Your task to perform on an android device: Open the web browser Image 0: 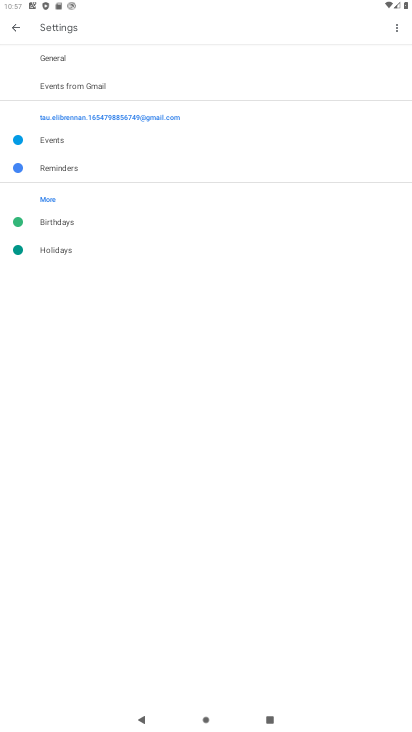
Step 0: press home button
Your task to perform on an android device: Open the web browser Image 1: 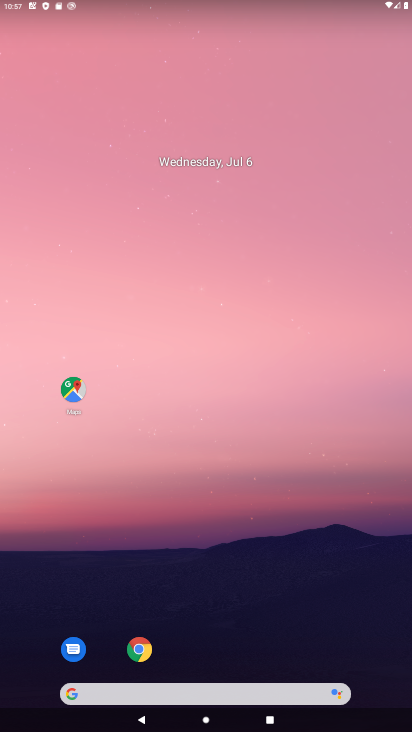
Step 1: drag from (348, 684) to (205, 7)
Your task to perform on an android device: Open the web browser Image 2: 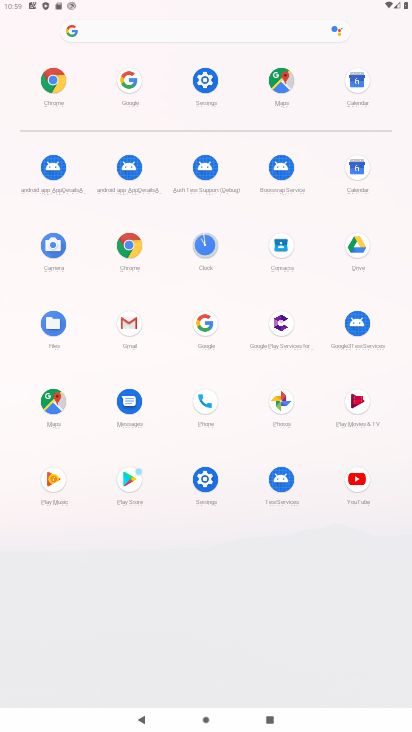
Step 2: click (125, 73)
Your task to perform on an android device: Open the web browser Image 3: 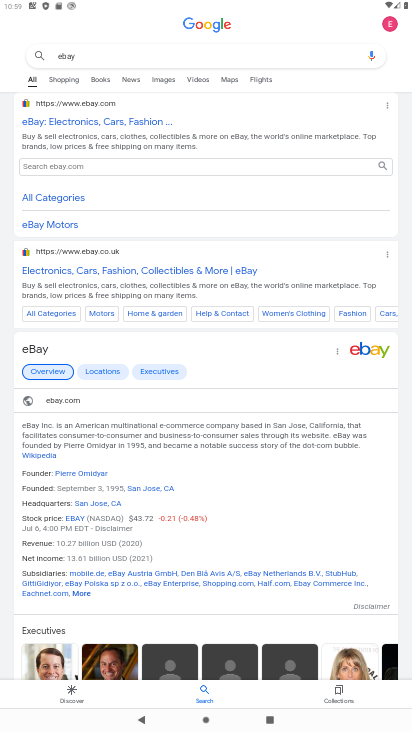
Step 3: press back button
Your task to perform on an android device: Open the web browser Image 4: 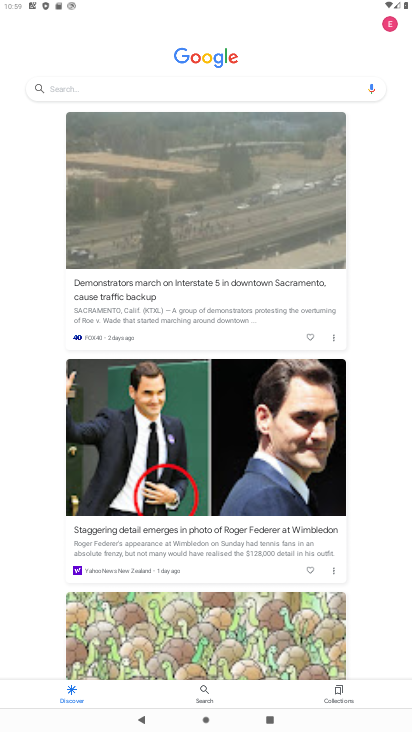
Step 4: click (116, 82)
Your task to perform on an android device: Open the web browser Image 5: 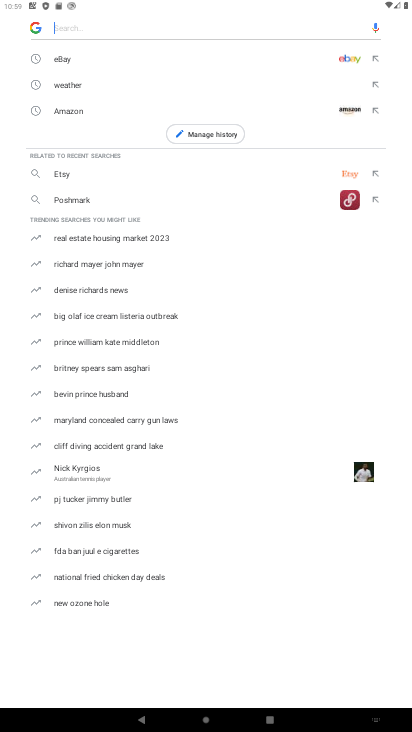
Step 5: type "web browser"
Your task to perform on an android device: Open the web browser Image 6: 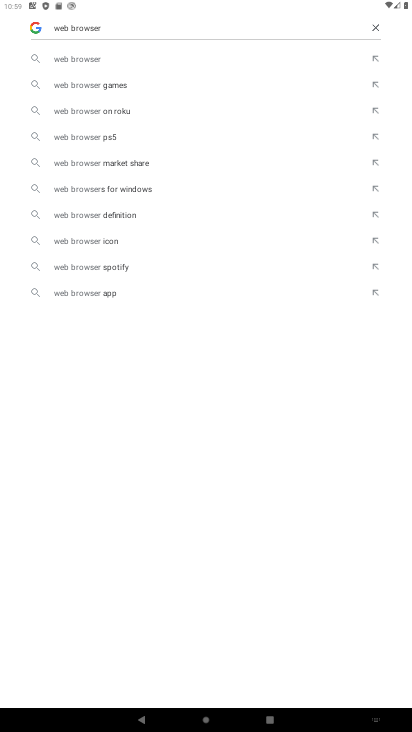
Step 6: click (66, 65)
Your task to perform on an android device: Open the web browser Image 7: 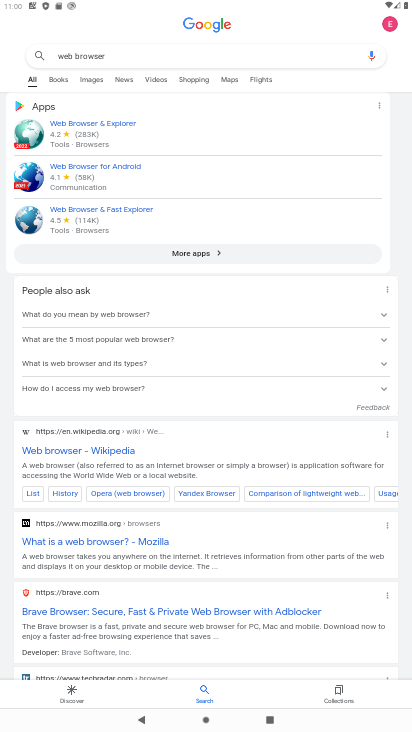
Step 7: task complete